Your task to perform on an android device: open a bookmark in the chrome app Image 0: 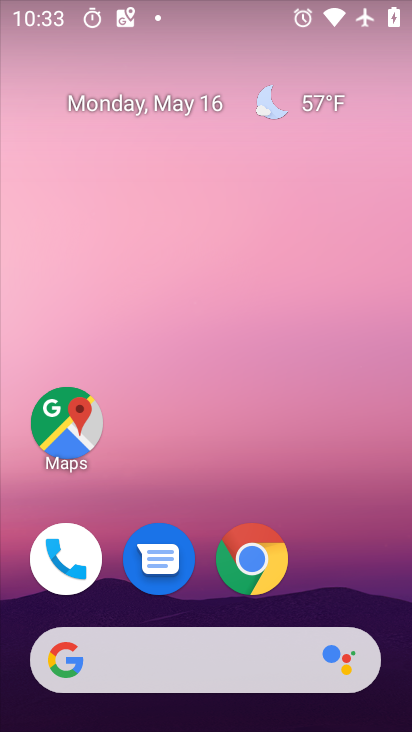
Step 0: click (249, 566)
Your task to perform on an android device: open a bookmark in the chrome app Image 1: 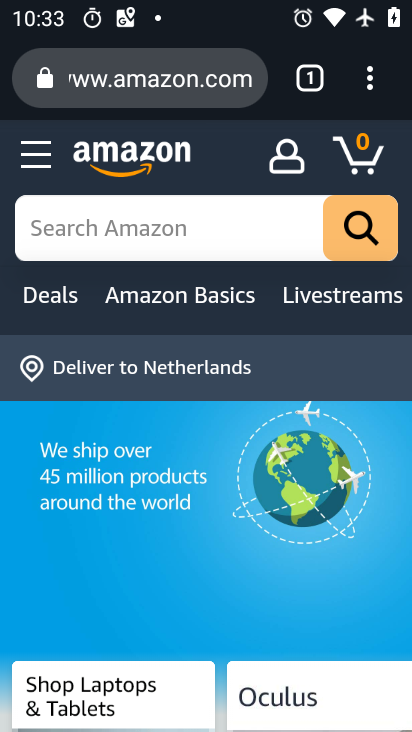
Step 1: click (372, 82)
Your task to perform on an android device: open a bookmark in the chrome app Image 2: 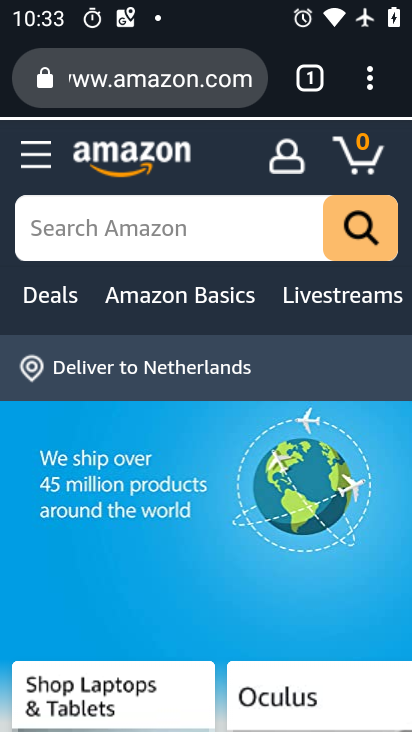
Step 2: drag from (376, 76) to (123, 269)
Your task to perform on an android device: open a bookmark in the chrome app Image 3: 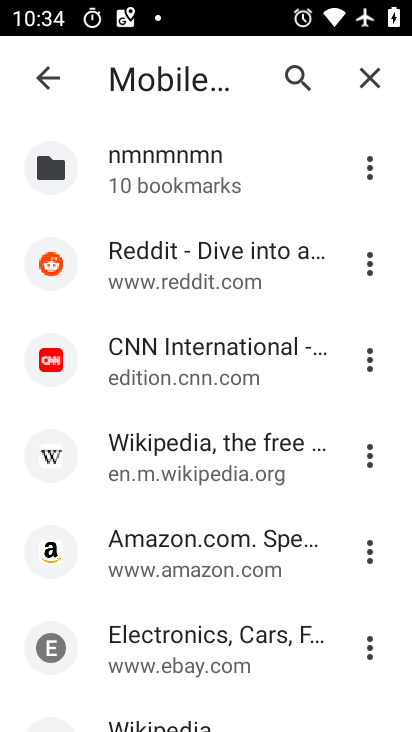
Step 3: click (244, 251)
Your task to perform on an android device: open a bookmark in the chrome app Image 4: 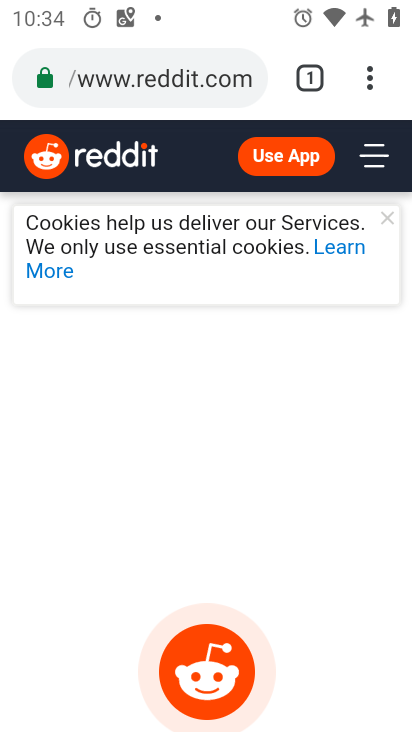
Step 4: task complete